Your task to perform on an android device: turn off notifications settings in the gmail app Image 0: 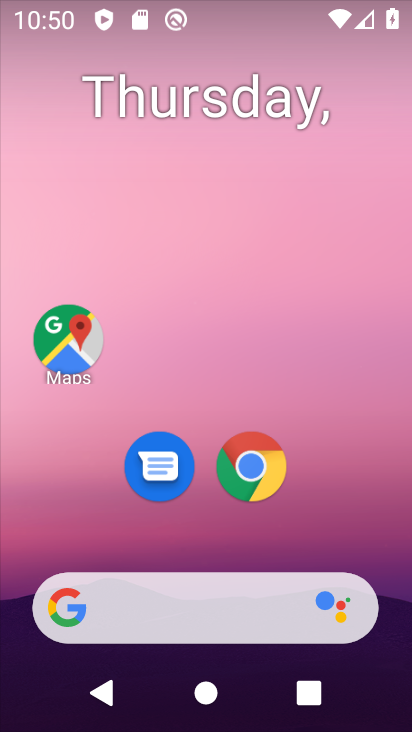
Step 0: drag from (231, 534) to (404, 428)
Your task to perform on an android device: turn off notifications settings in the gmail app Image 1: 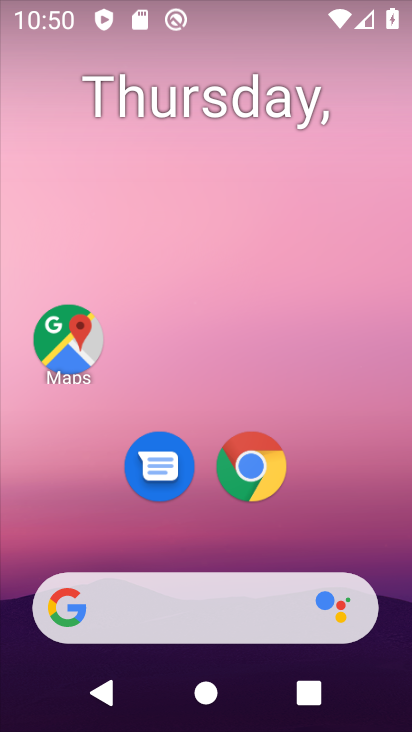
Step 1: drag from (199, 572) to (258, 17)
Your task to perform on an android device: turn off notifications settings in the gmail app Image 2: 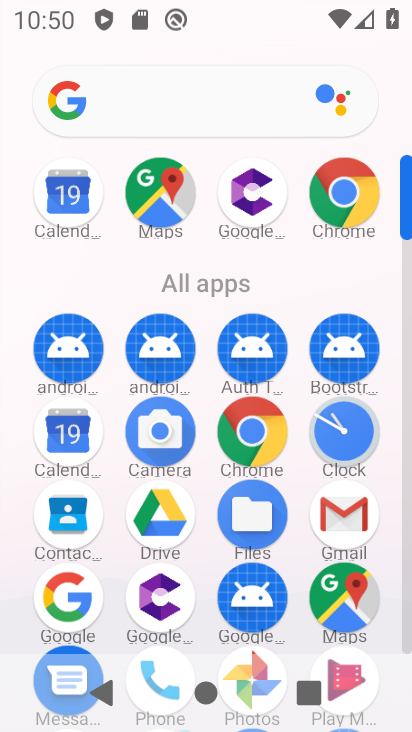
Step 2: click (331, 509)
Your task to perform on an android device: turn off notifications settings in the gmail app Image 3: 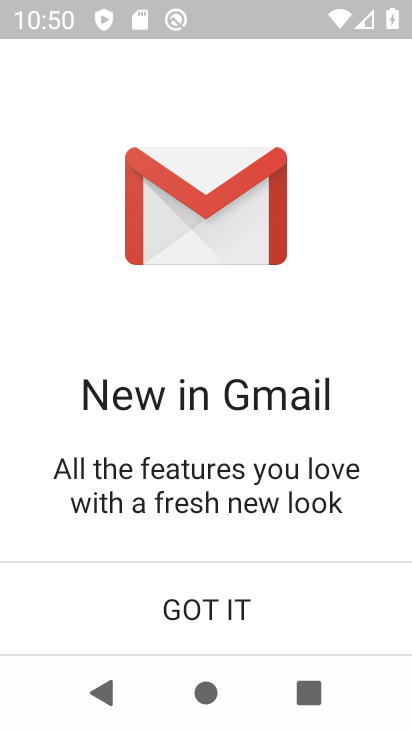
Step 3: click (155, 616)
Your task to perform on an android device: turn off notifications settings in the gmail app Image 4: 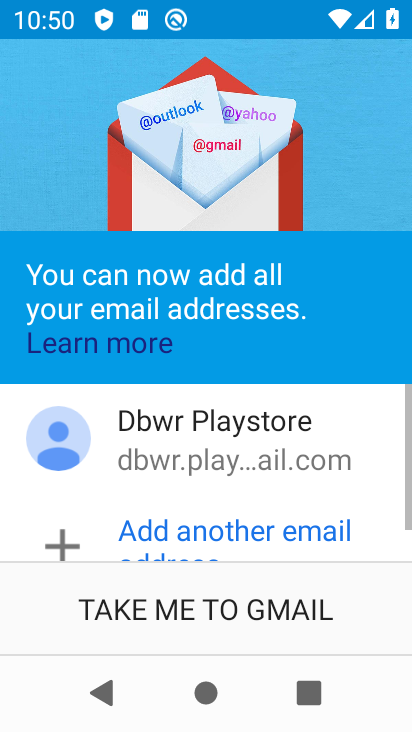
Step 4: click (155, 616)
Your task to perform on an android device: turn off notifications settings in the gmail app Image 5: 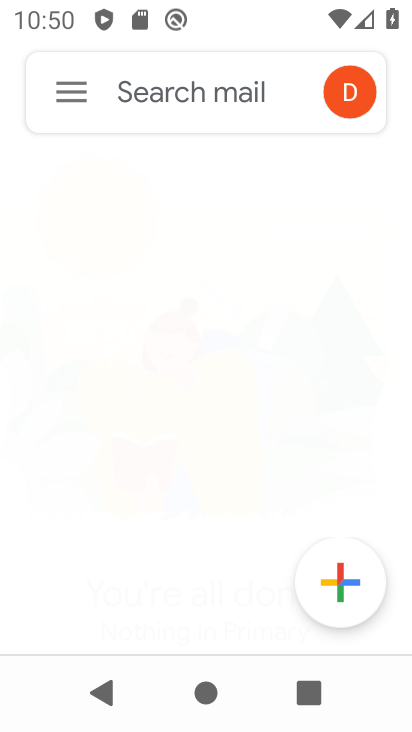
Step 5: click (75, 89)
Your task to perform on an android device: turn off notifications settings in the gmail app Image 6: 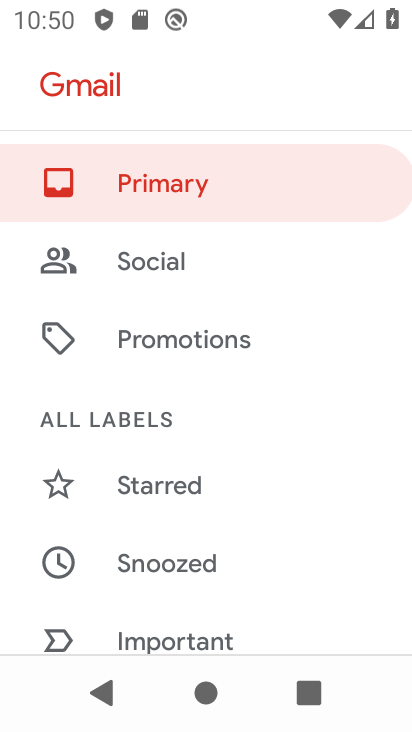
Step 6: drag from (172, 548) to (142, 89)
Your task to perform on an android device: turn off notifications settings in the gmail app Image 7: 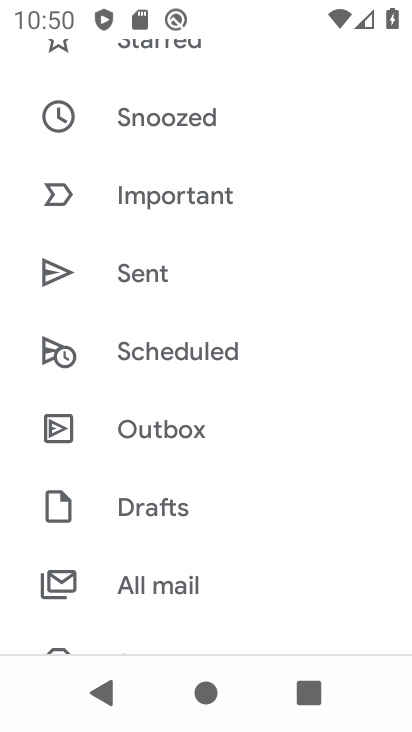
Step 7: drag from (197, 579) to (183, 77)
Your task to perform on an android device: turn off notifications settings in the gmail app Image 8: 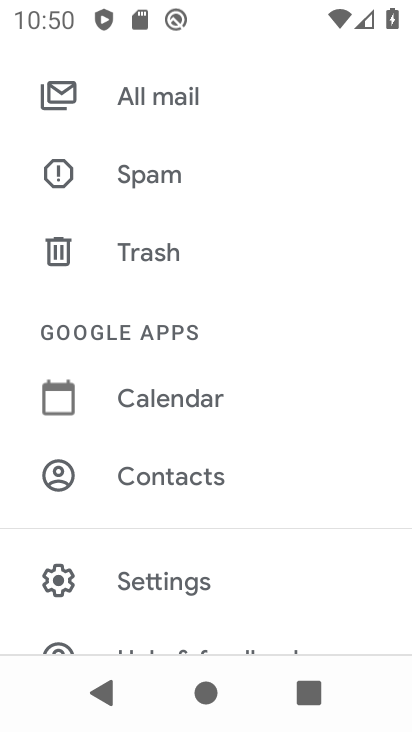
Step 8: click (167, 575)
Your task to perform on an android device: turn off notifications settings in the gmail app Image 9: 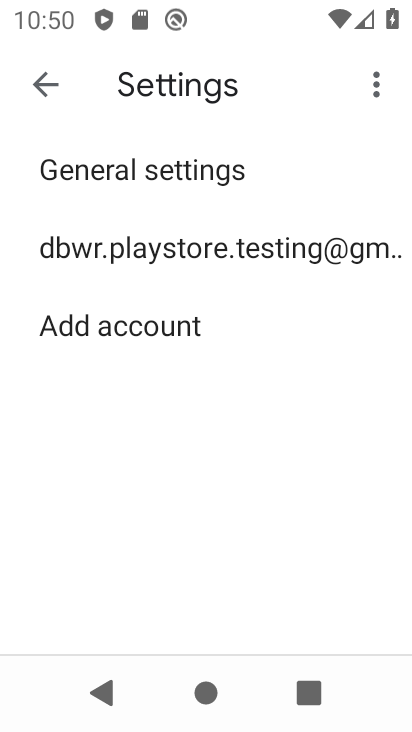
Step 9: click (150, 178)
Your task to perform on an android device: turn off notifications settings in the gmail app Image 10: 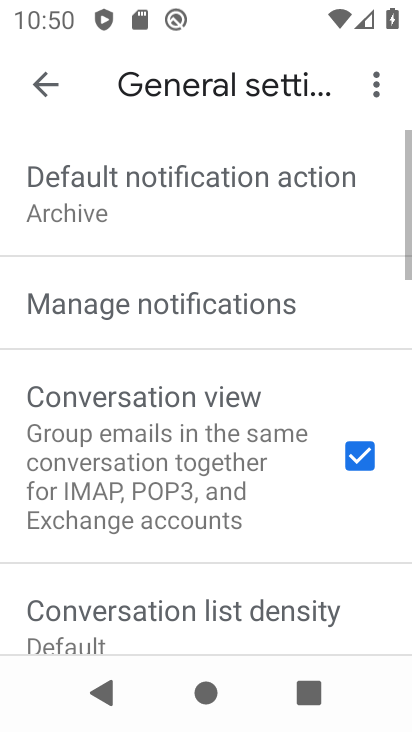
Step 10: click (213, 324)
Your task to perform on an android device: turn off notifications settings in the gmail app Image 11: 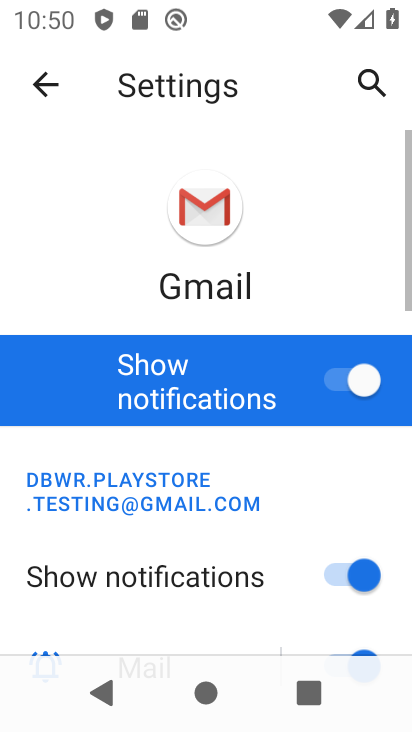
Step 11: click (343, 371)
Your task to perform on an android device: turn off notifications settings in the gmail app Image 12: 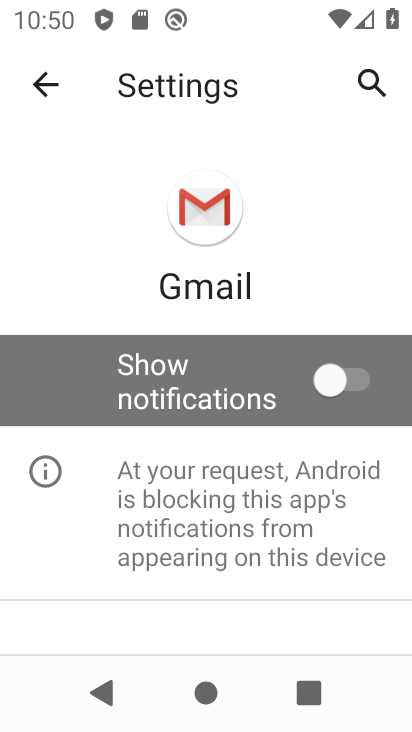
Step 12: task complete